Your task to perform on an android device: Open maps Image 0: 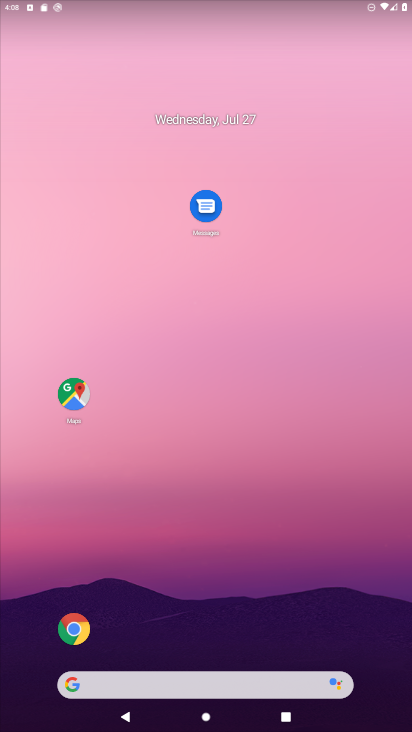
Step 0: click (82, 383)
Your task to perform on an android device: Open maps Image 1: 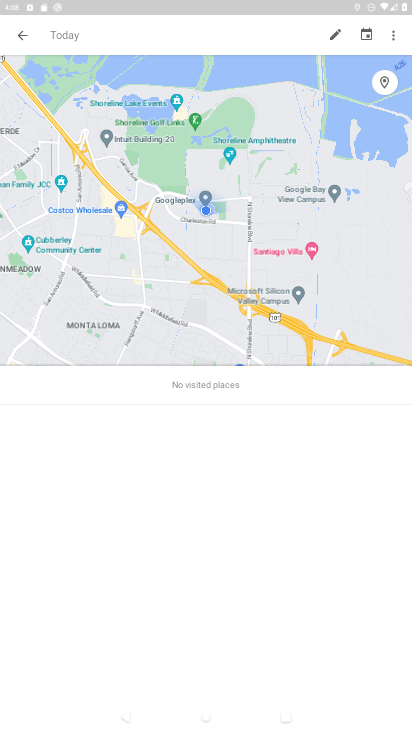
Step 1: task complete